Your task to perform on an android device: snooze an email in the gmail app Image 0: 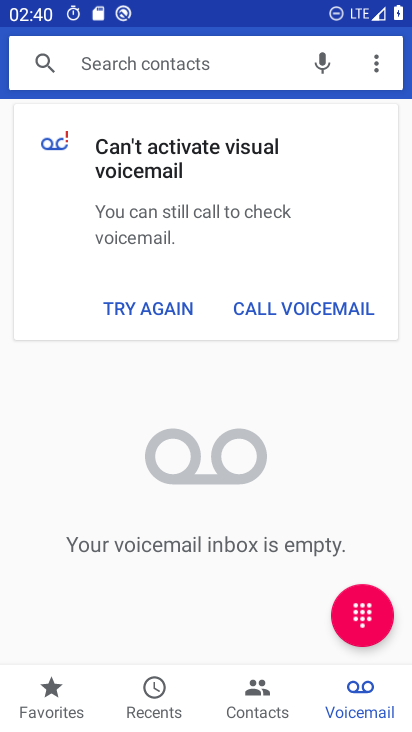
Step 0: press home button
Your task to perform on an android device: snooze an email in the gmail app Image 1: 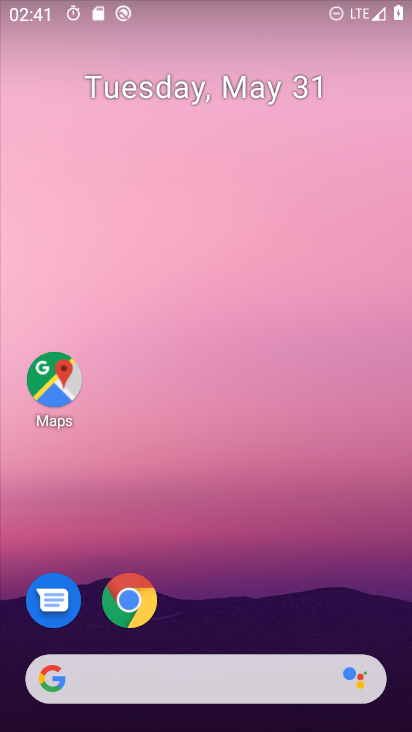
Step 1: drag from (231, 721) to (220, 103)
Your task to perform on an android device: snooze an email in the gmail app Image 2: 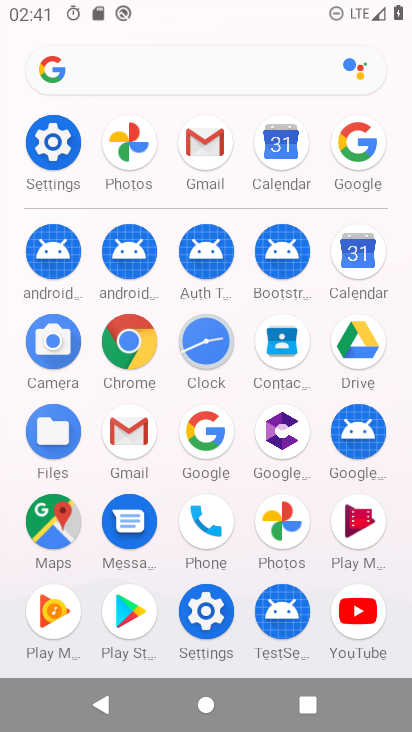
Step 2: click (130, 426)
Your task to perform on an android device: snooze an email in the gmail app Image 3: 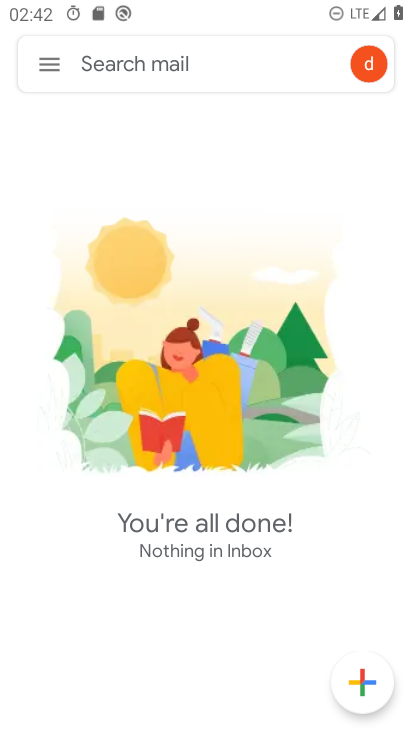
Step 3: task complete